Your task to perform on an android device: When is my next meeting? Image 0: 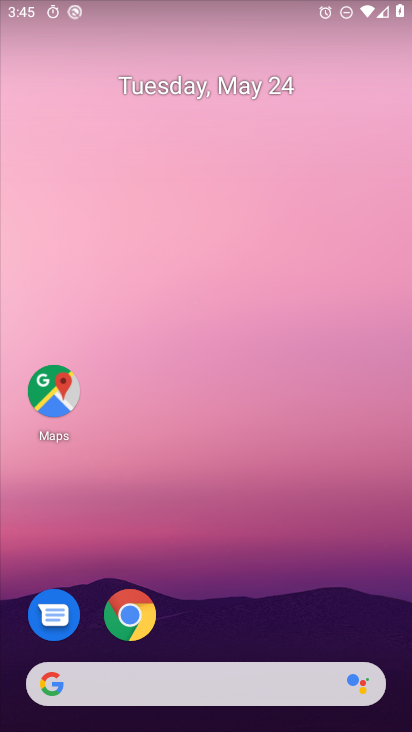
Step 0: drag from (184, 608) to (184, 253)
Your task to perform on an android device: When is my next meeting? Image 1: 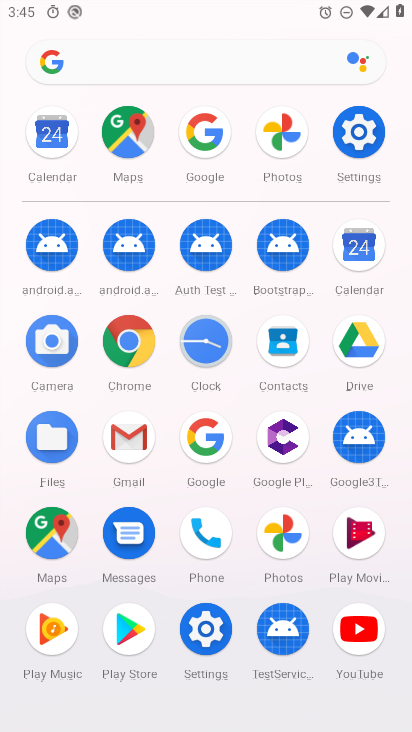
Step 1: click (367, 252)
Your task to perform on an android device: When is my next meeting? Image 2: 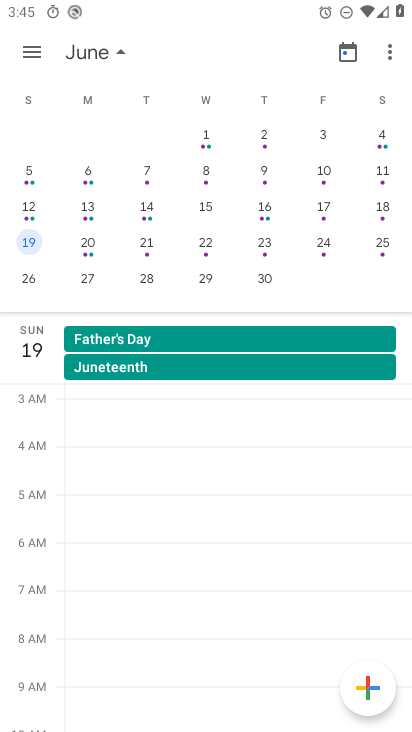
Step 2: click (28, 57)
Your task to perform on an android device: When is my next meeting? Image 3: 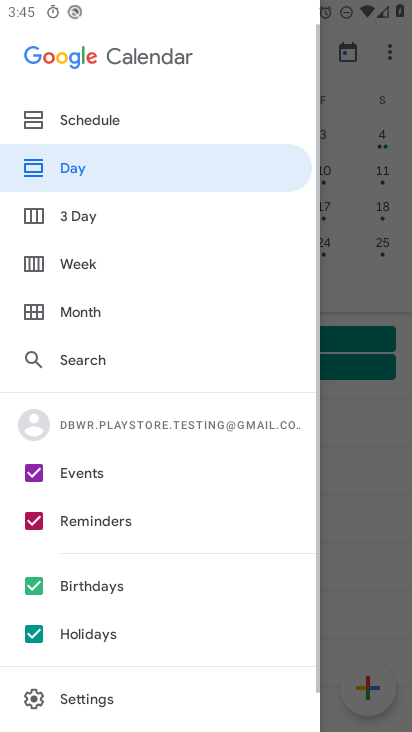
Step 3: click (81, 108)
Your task to perform on an android device: When is my next meeting? Image 4: 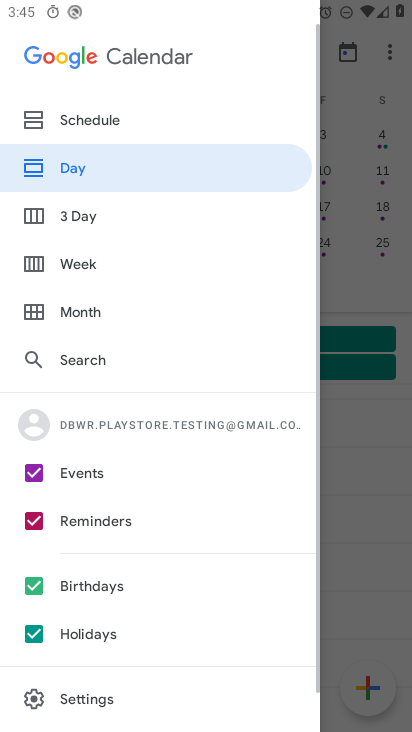
Step 4: click (74, 118)
Your task to perform on an android device: When is my next meeting? Image 5: 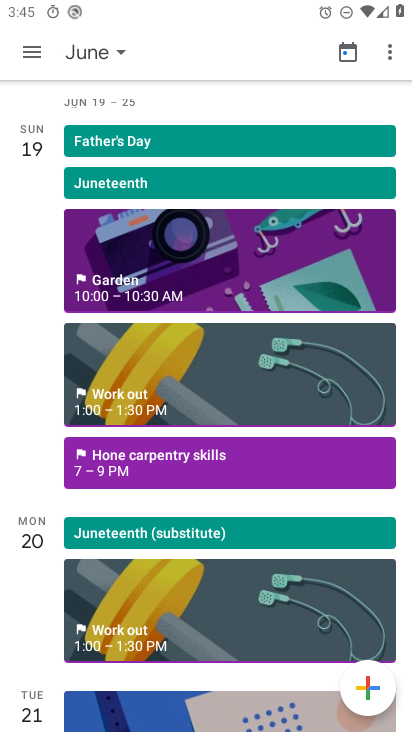
Step 5: click (78, 52)
Your task to perform on an android device: When is my next meeting? Image 6: 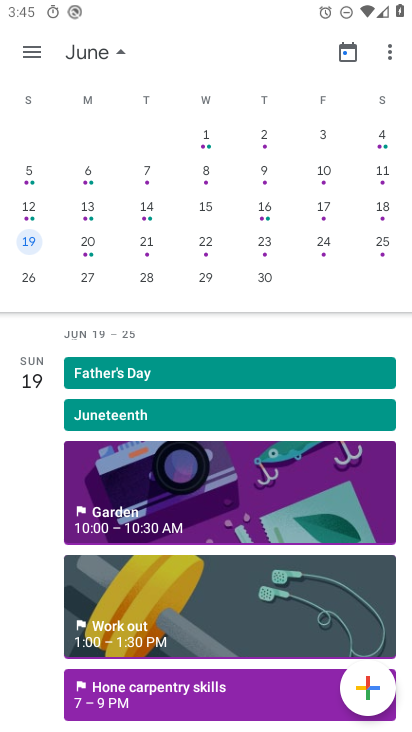
Step 6: drag from (72, 211) to (404, 250)
Your task to perform on an android device: When is my next meeting? Image 7: 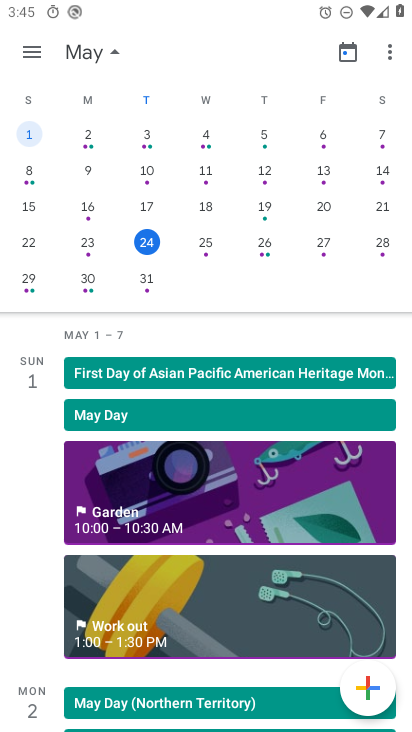
Step 7: click (202, 246)
Your task to perform on an android device: When is my next meeting? Image 8: 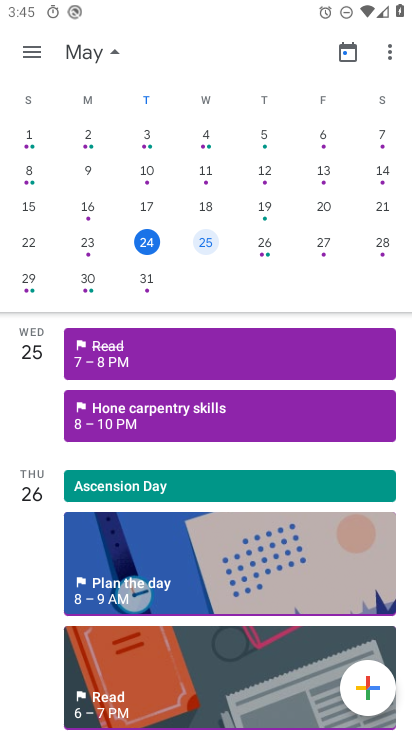
Step 8: click (141, 376)
Your task to perform on an android device: When is my next meeting? Image 9: 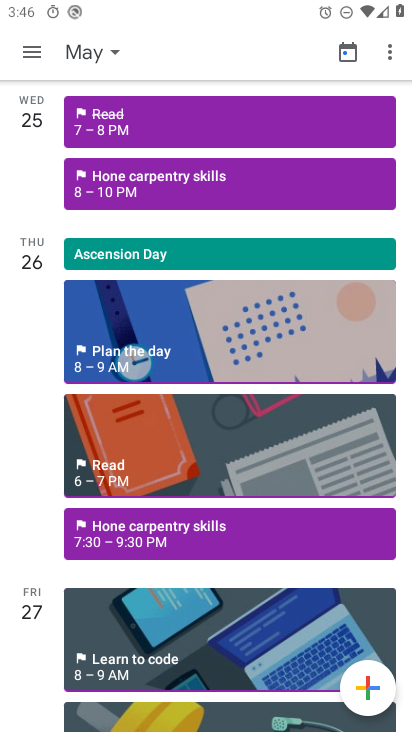
Step 9: click (105, 106)
Your task to perform on an android device: When is my next meeting? Image 10: 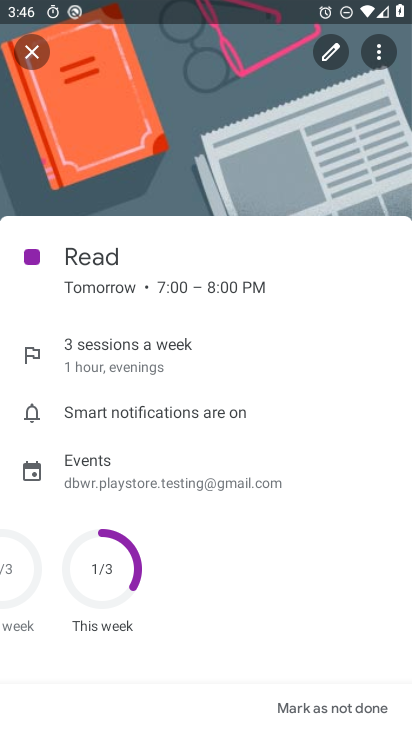
Step 10: task complete